Your task to perform on an android device: refresh tabs in the chrome app Image 0: 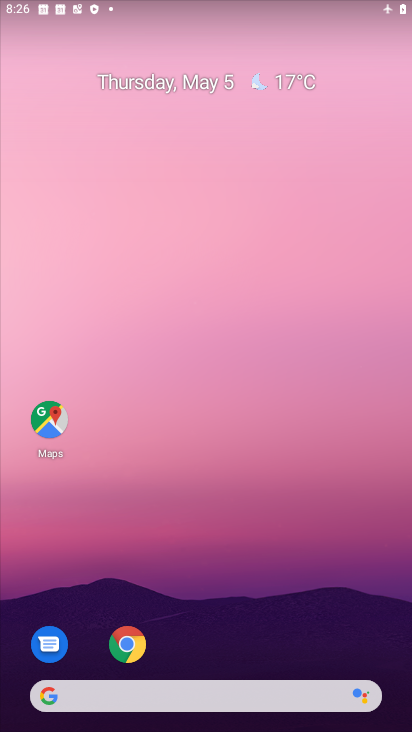
Step 0: drag from (193, 647) to (289, 45)
Your task to perform on an android device: refresh tabs in the chrome app Image 1: 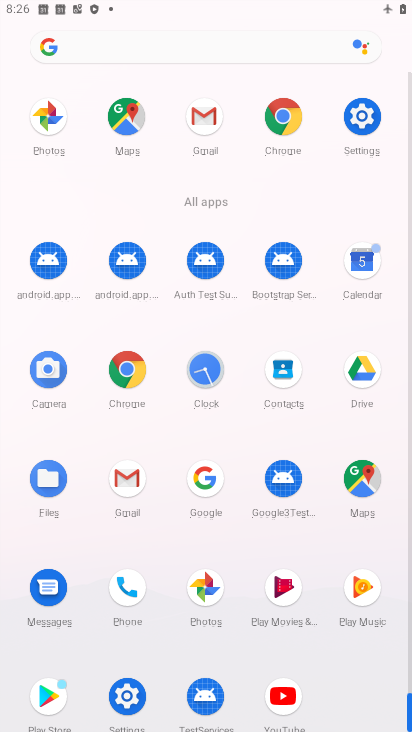
Step 1: click (278, 120)
Your task to perform on an android device: refresh tabs in the chrome app Image 2: 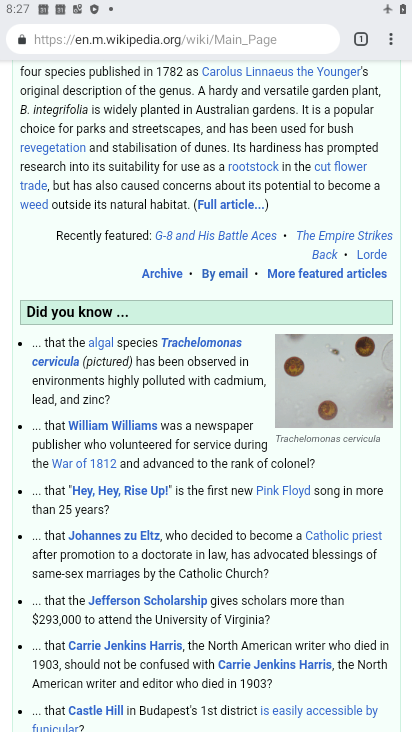
Step 2: drag from (206, 597) to (168, 185)
Your task to perform on an android device: refresh tabs in the chrome app Image 3: 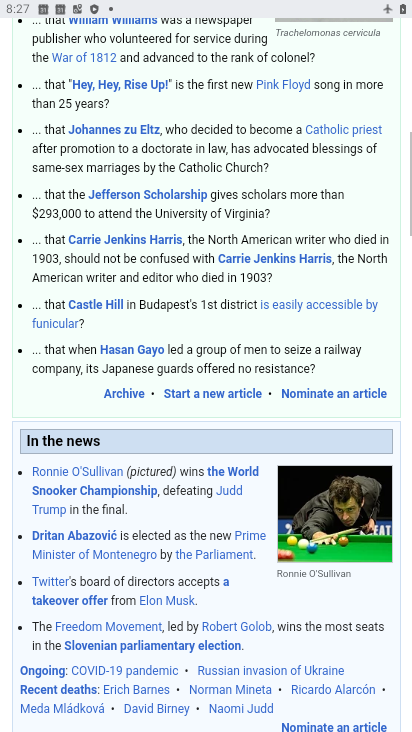
Step 3: drag from (169, 88) to (280, 589)
Your task to perform on an android device: refresh tabs in the chrome app Image 4: 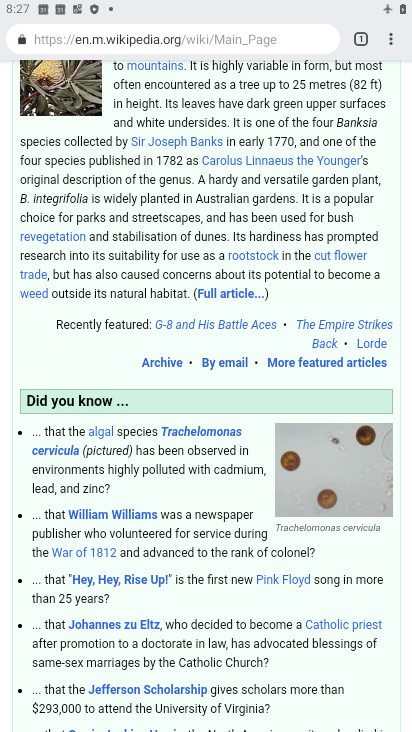
Step 4: click (389, 40)
Your task to perform on an android device: refresh tabs in the chrome app Image 5: 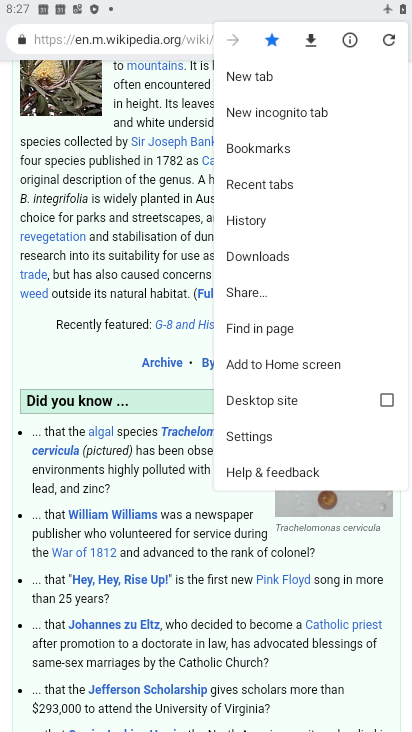
Step 5: click (389, 40)
Your task to perform on an android device: refresh tabs in the chrome app Image 6: 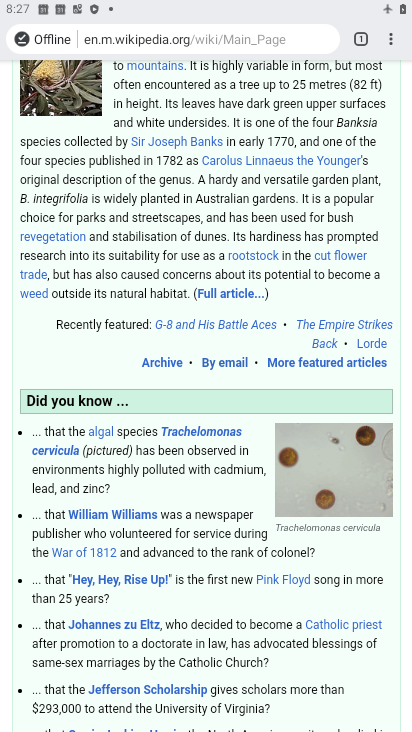
Step 6: task complete